Your task to perform on an android device: Open Yahoo.com Image 0: 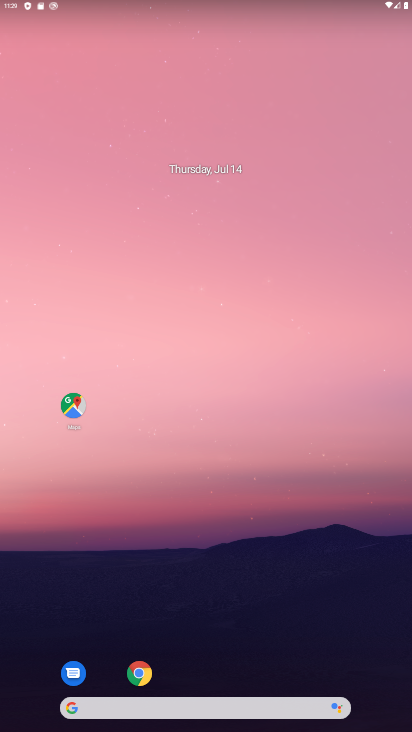
Step 0: click (147, 671)
Your task to perform on an android device: Open Yahoo.com Image 1: 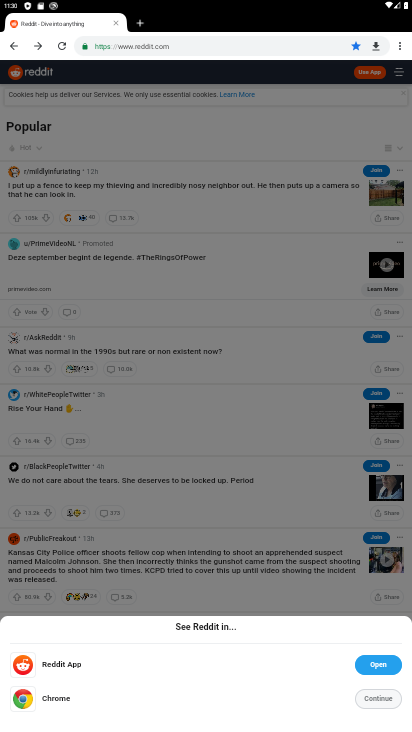
Step 1: click (140, 24)
Your task to perform on an android device: Open Yahoo.com Image 2: 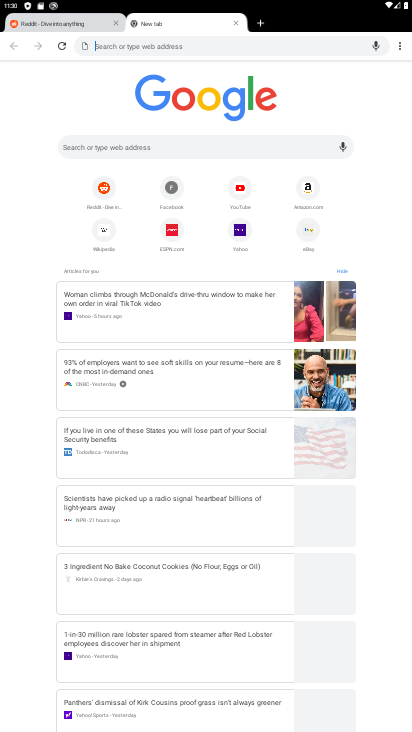
Step 2: click (115, 26)
Your task to perform on an android device: Open Yahoo.com Image 3: 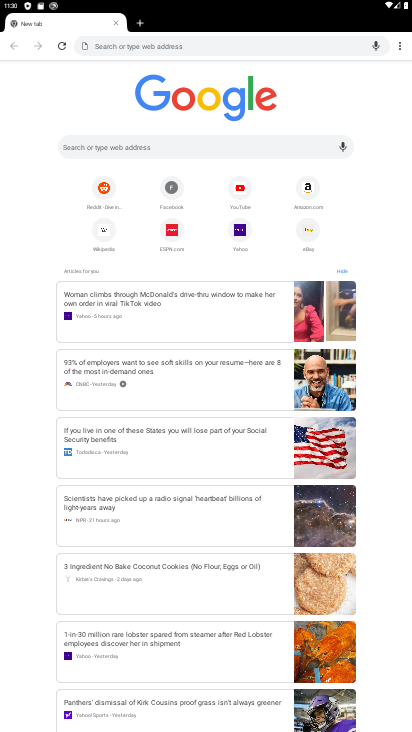
Step 3: click (243, 240)
Your task to perform on an android device: Open Yahoo.com Image 4: 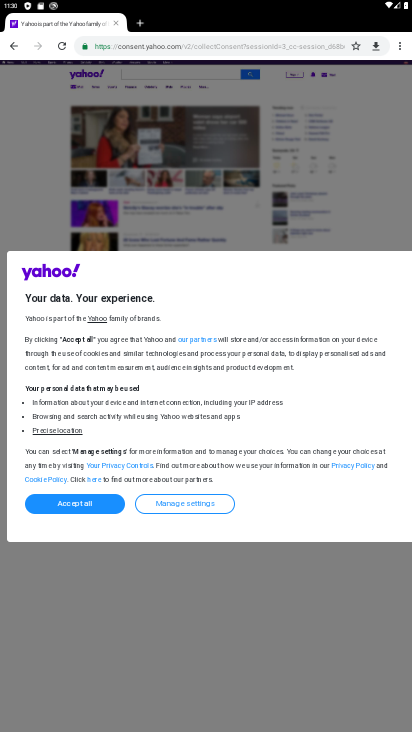
Step 4: click (326, 110)
Your task to perform on an android device: Open Yahoo.com Image 5: 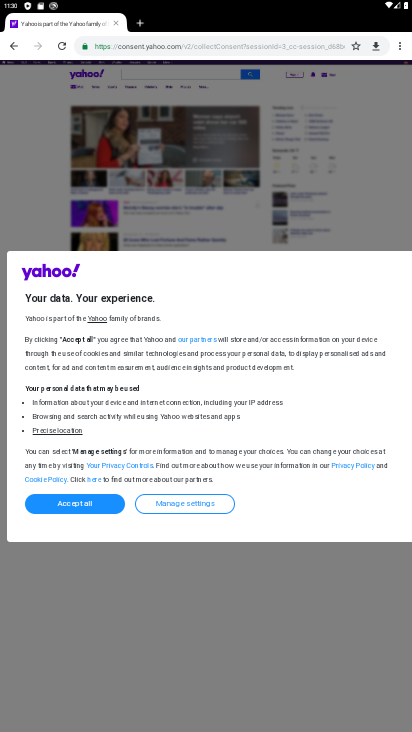
Step 5: task complete